Your task to perform on an android device: Open Google Chrome and open the bookmarks view Image 0: 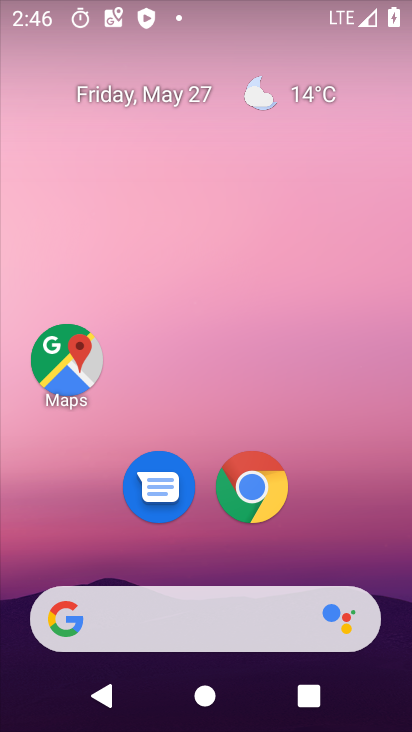
Step 0: drag from (356, 512) to (307, 123)
Your task to perform on an android device: Open Google Chrome and open the bookmarks view Image 1: 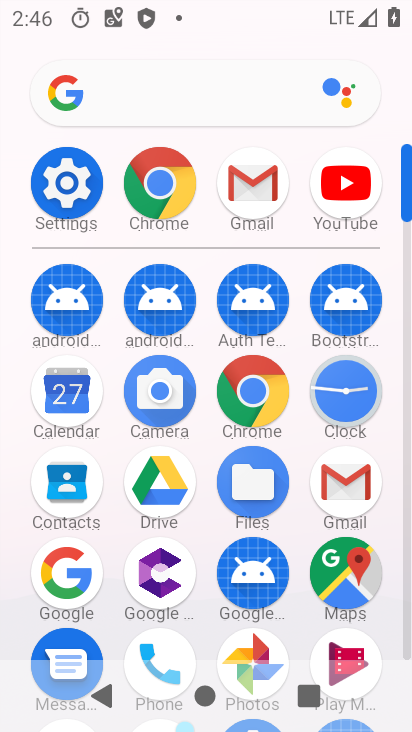
Step 1: click (259, 399)
Your task to perform on an android device: Open Google Chrome and open the bookmarks view Image 2: 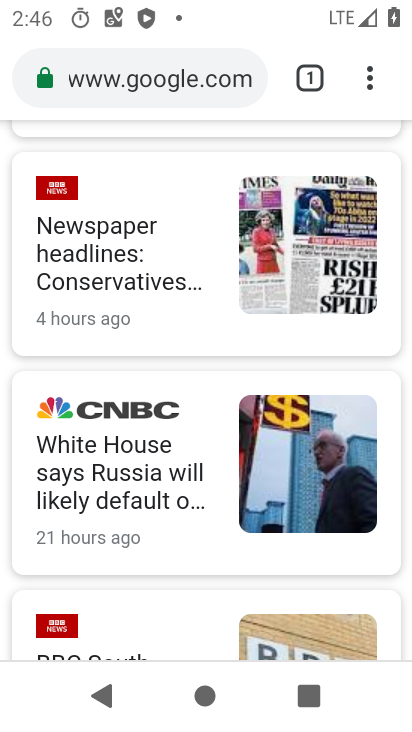
Step 2: task complete